Your task to perform on an android device: turn on bluetooth scan Image 0: 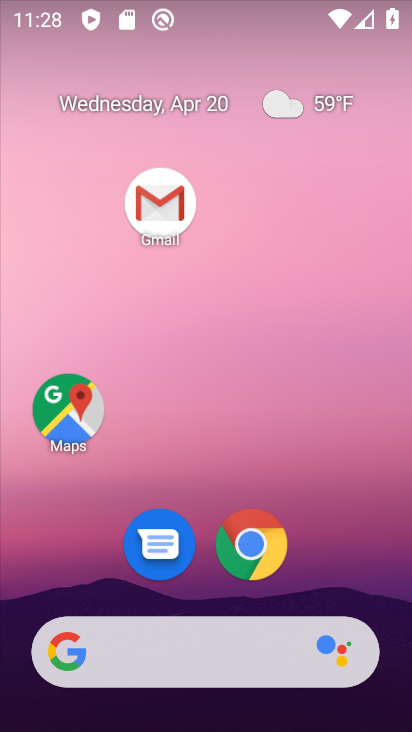
Step 0: drag from (261, 607) to (302, 98)
Your task to perform on an android device: turn on bluetooth scan Image 1: 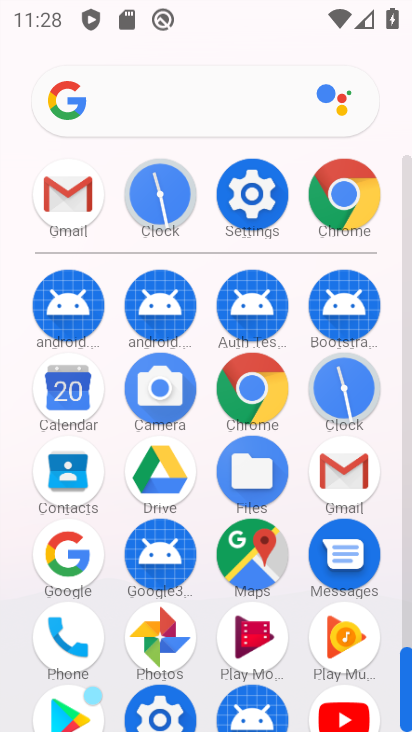
Step 1: click (256, 179)
Your task to perform on an android device: turn on bluetooth scan Image 2: 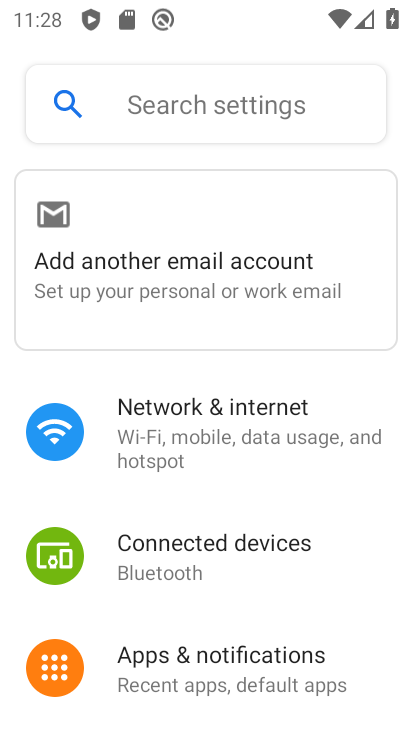
Step 2: drag from (239, 585) to (294, 158)
Your task to perform on an android device: turn on bluetooth scan Image 3: 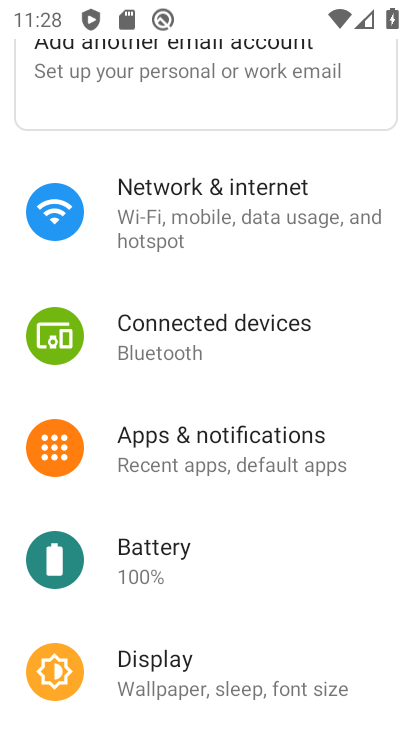
Step 3: drag from (214, 569) to (292, 183)
Your task to perform on an android device: turn on bluetooth scan Image 4: 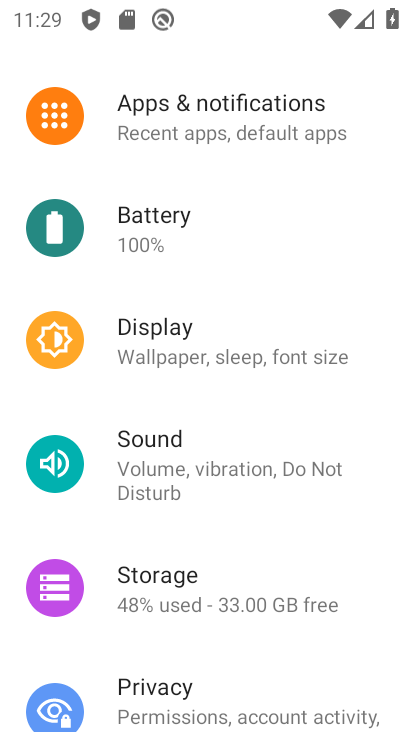
Step 4: drag from (256, 560) to (306, 251)
Your task to perform on an android device: turn on bluetooth scan Image 5: 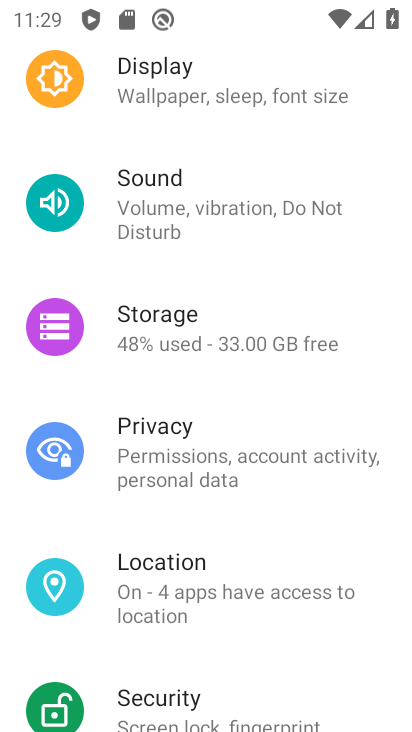
Step 5: click (202, 567)
Your task to perform on an android device: turn on bluetooth scan Image 6: 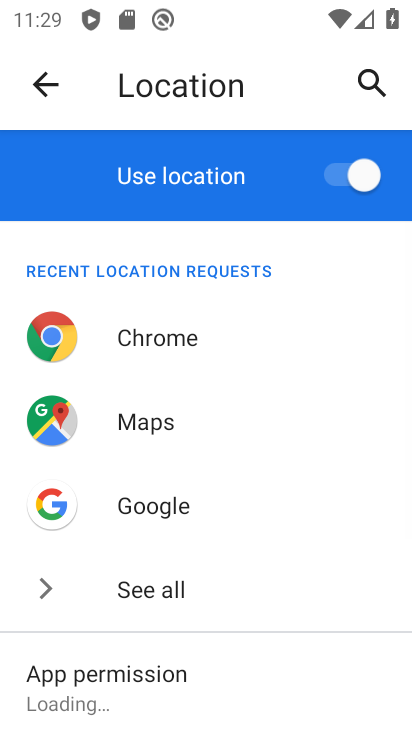
Step 6: drag from (225, 663) to (322, 238)
Your task to perform on an android device: turn on bluetooth scan Image 7: 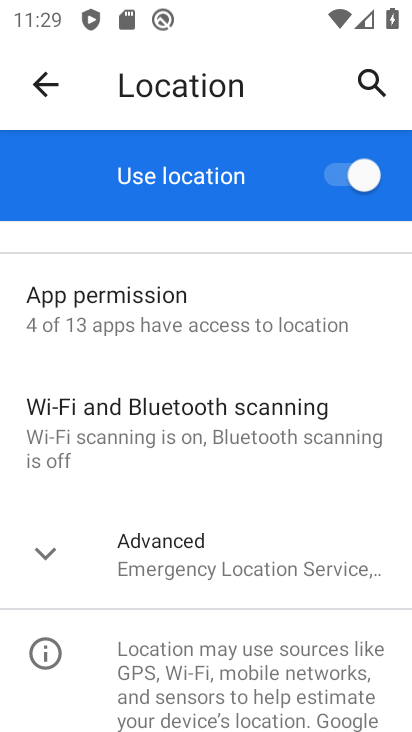
Step 7: click (277, 431)
Your task to perform on an android device: turn on bluetooth scan Image 8: 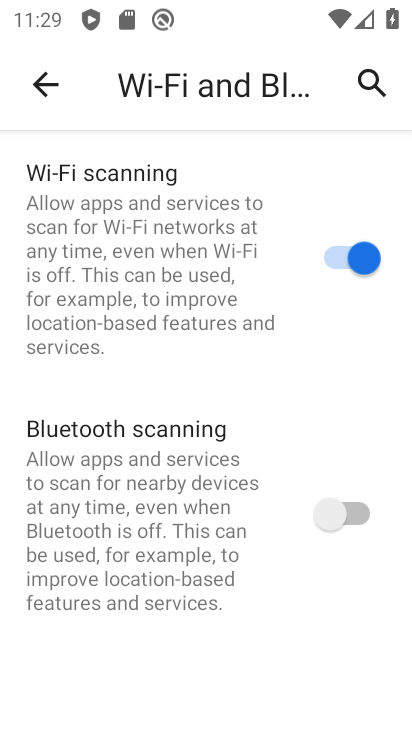
Step 8: click (331, 512)
Your task to perform on an android device: turn on bluetooth scan Image 9: 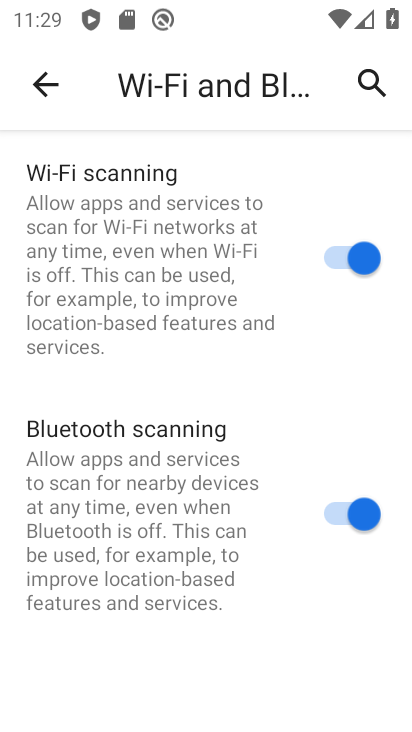
Step 9: task complete